Your task to perform on an android device: Go to Wikipedia Image 0: 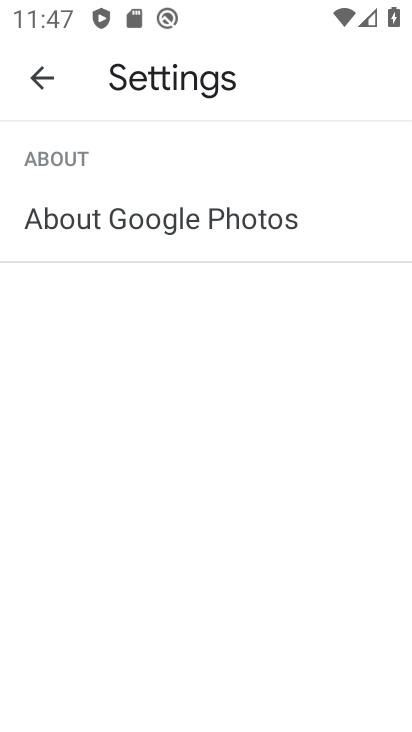
Step 0: press home button
Your task to perform on an android device: Go to Wikipedia Image 1: 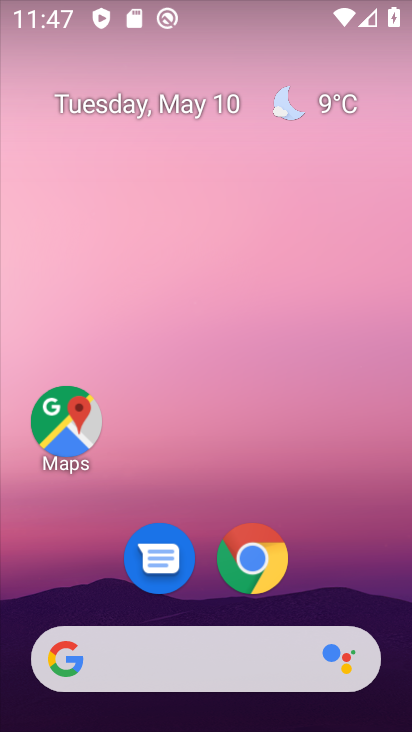
Step 1: drag from (392, 575) to (400, 191)
Your task to perform on an android device: Go to Wikipedia Image 2: 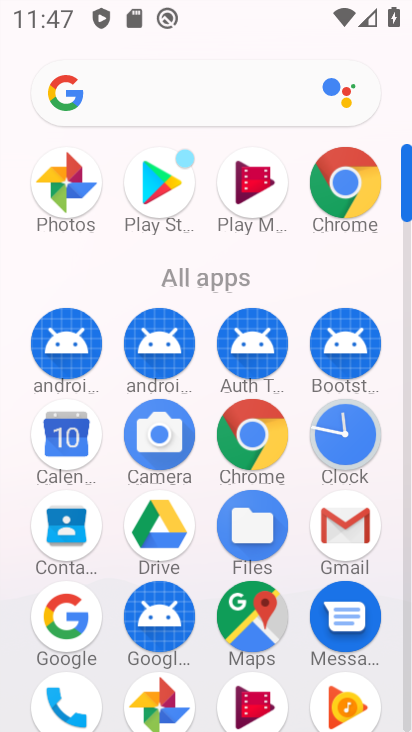
Step 2: click (344, 184)
Your task to perform on an android device: Go to Wikipedia Image 3: 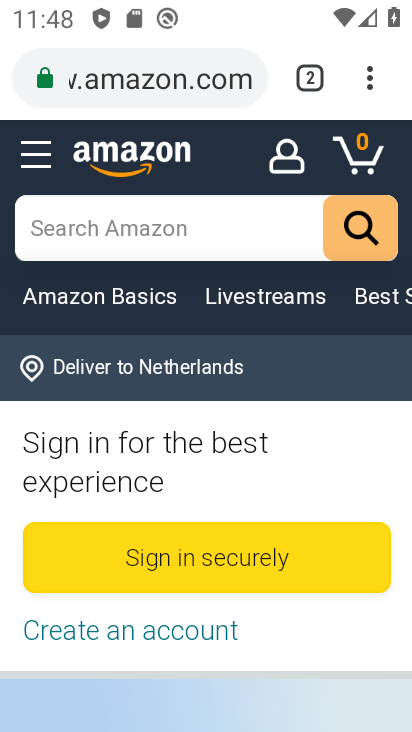
Step 3: task complete